Your task to perform on an android device: turn on bluetooth scan Image 0: 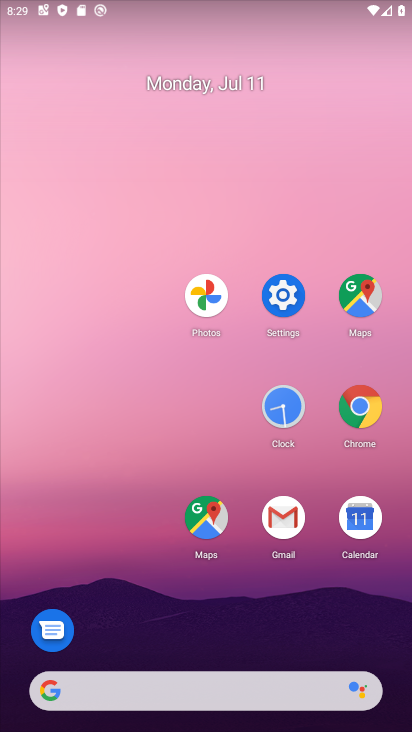
Step 0: click (292, 294)
Your task to perform on an android device: turn on bluetooth scan Image 1: 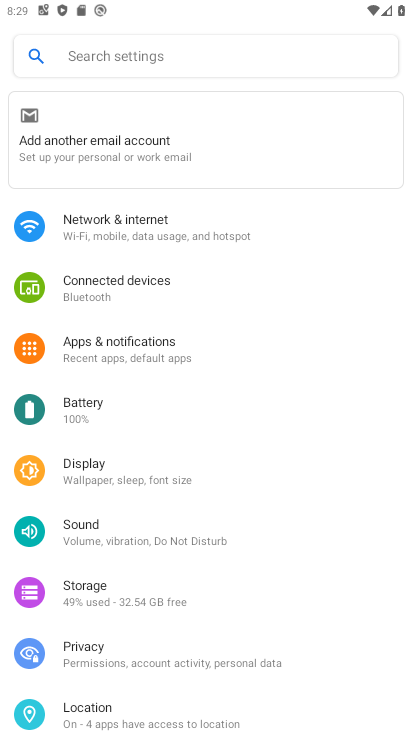
Step 1: drag from (200, 551) to (225, 304)
Your task to perform on an android device: turn on bluetooth scan Image 2: 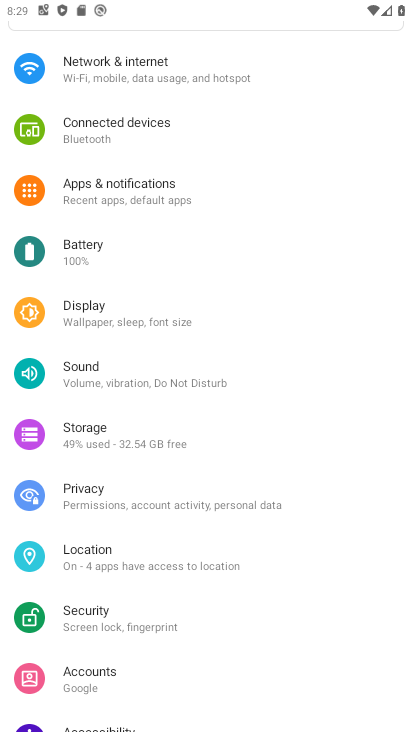
Step 2: click (211, 565)
Your task to perform on an android device: turn on bluetooth scan Image 3: 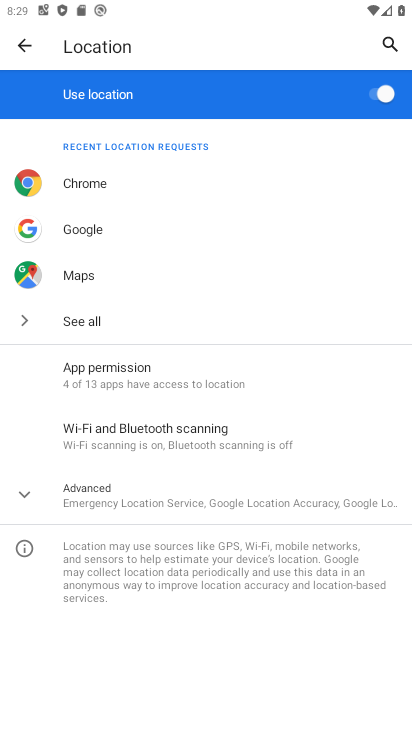
Step 3: click (201, 503)
Your task to perform on an android device: turn on bluetooth scan Image 4: 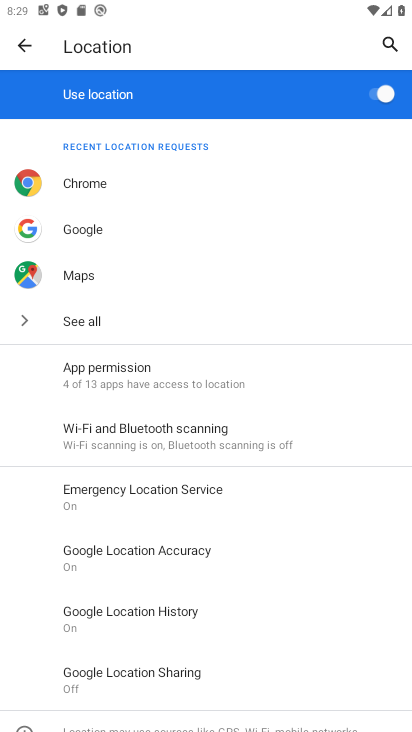
Step 4: click (217, 453)
Your task to perform on an android device: turn on bluetooth scan Image 5: 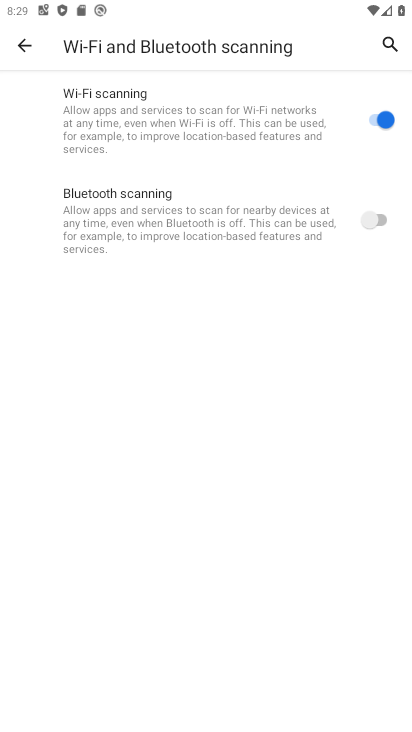
Step 5: click (383, 215)
Your task to perform on an android device: turn on bluetooth scan Image 6: 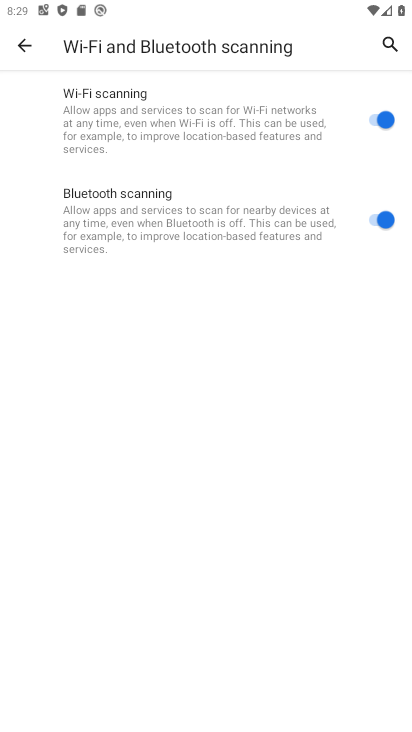
Step 6: task complete